Your task to perform on an android device: Go to Amazon Image 0: 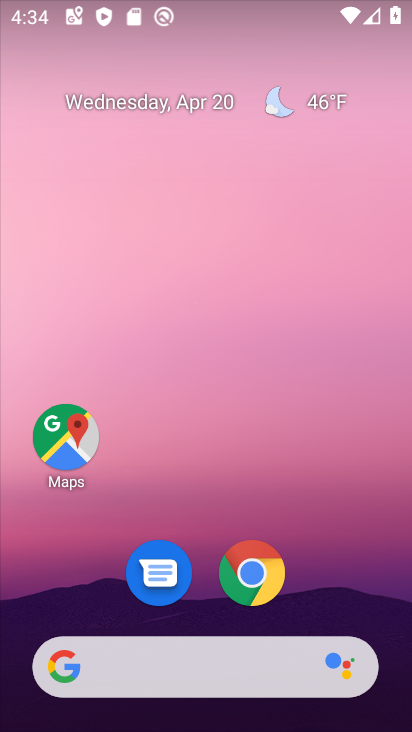
Step 0: click (243, 573)
Your task to perform on an android device: Go to Amazon Image 1: 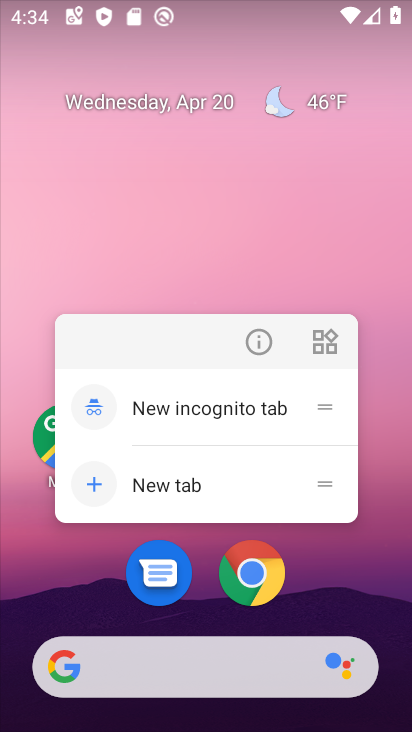
Step 1: click (243, 573)
Your task to perform on an android device: Go to Amazon Image 2: 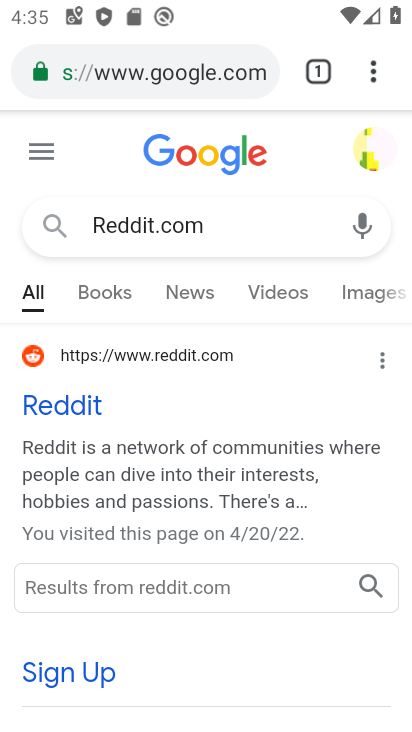
Step 2: click (213, 226)
Your task to perform on an android device: Go to Amazon Image 3: 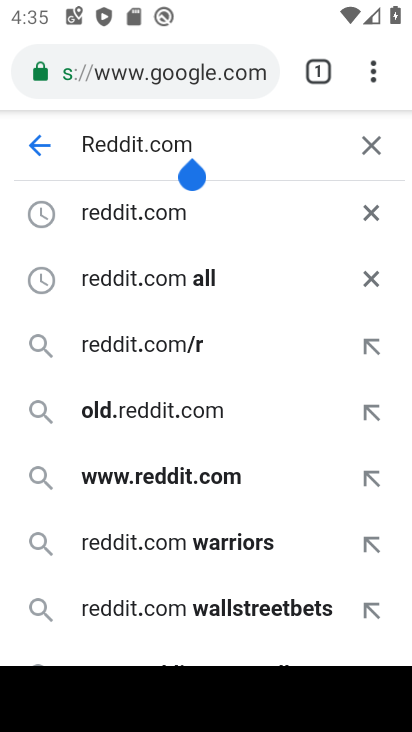
Step 3: click (245, 66)
Your task to perform on an android device: Go to Amazon Image 4: 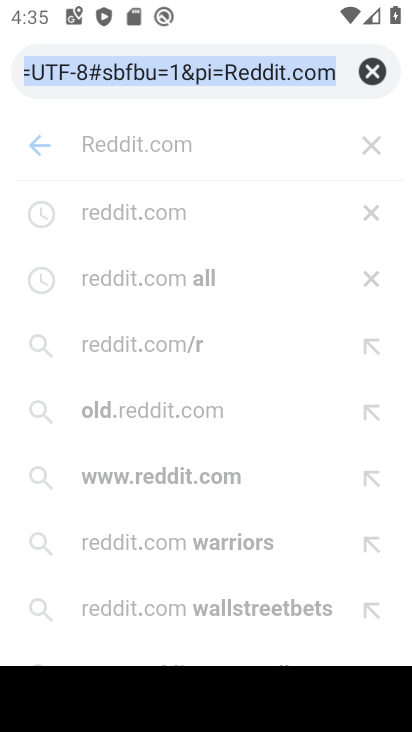
Step 4: click (377, 65)
Your task to perform on an android device: Go to Amazon Image 5: 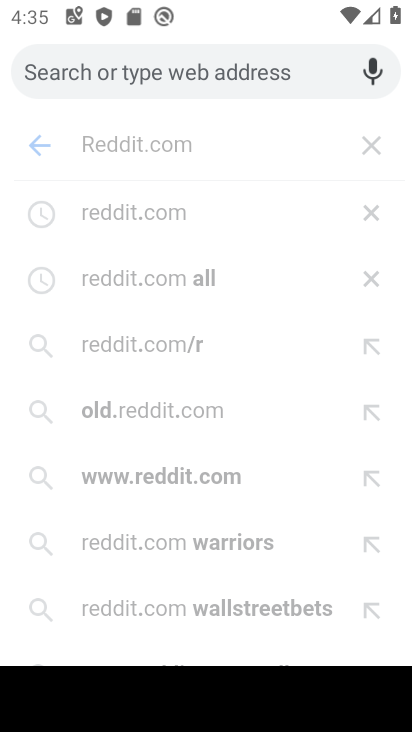
Step 5: type "Amazon"
Your task to perform on an android device: Go to Amazon Image 6: 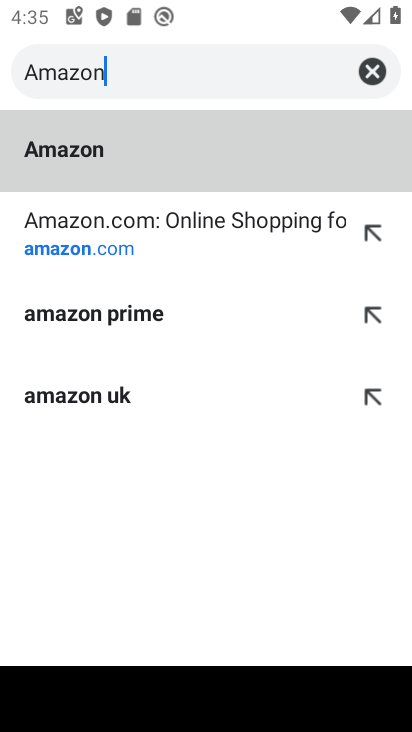
Step 6: click (98, 238)
Your task to perform on an android device: Go to Amazon Image 7: 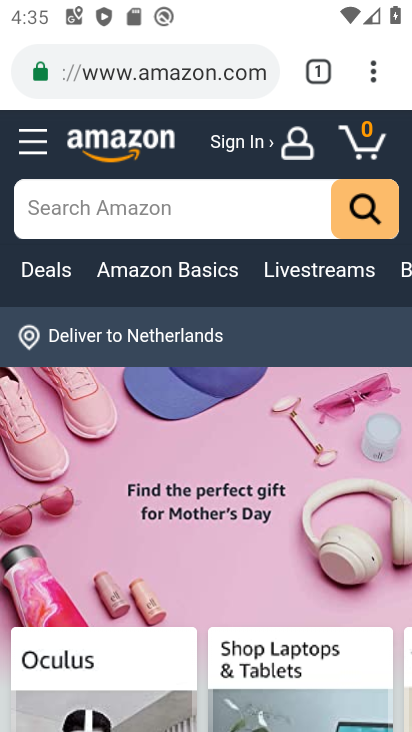
Step 7: task complete